Your task to perform on an android device: uninstall "Google Pay: Save, Pay, Manage" Image 0: 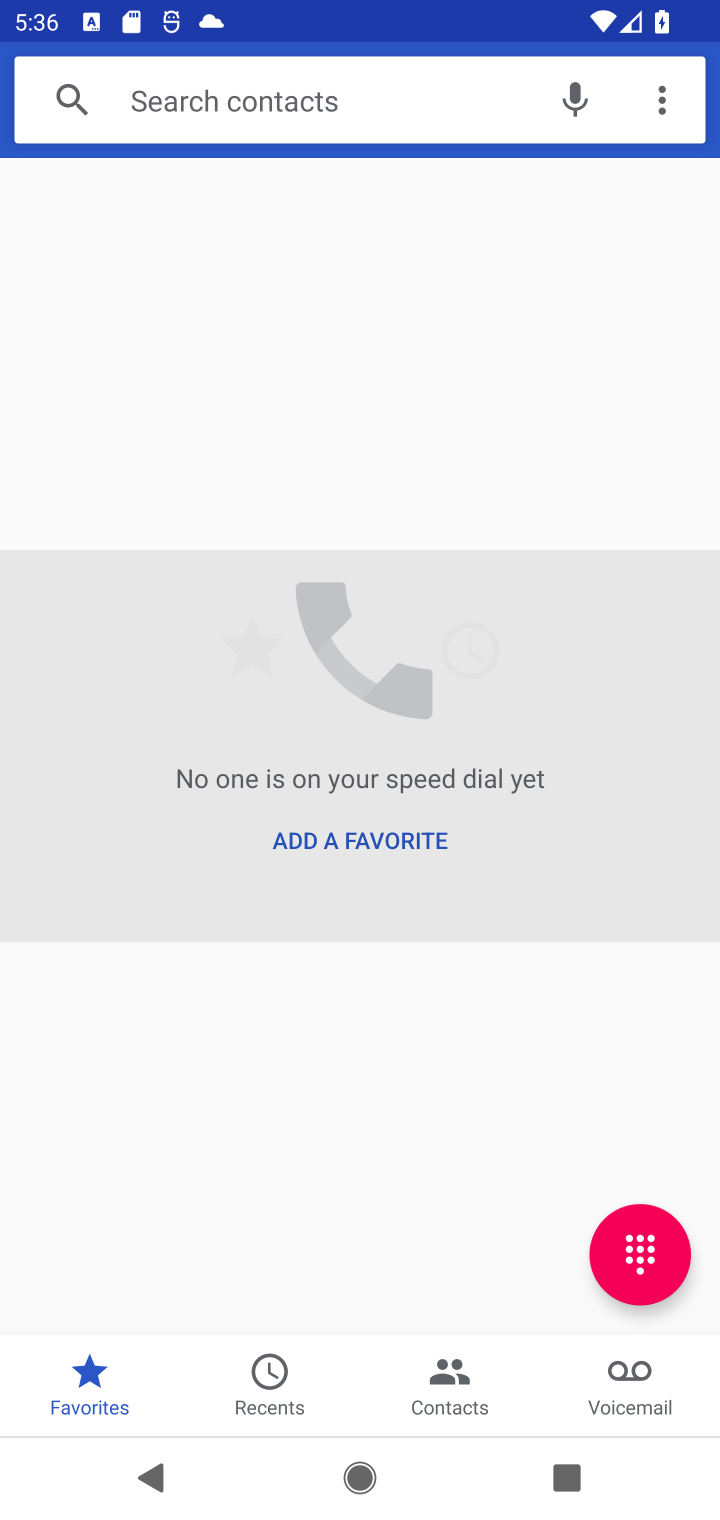
Step 0: press home button
Your task to perform on an android device: uninstall "Google Pay: Save, Pay, Manage" Image 1: 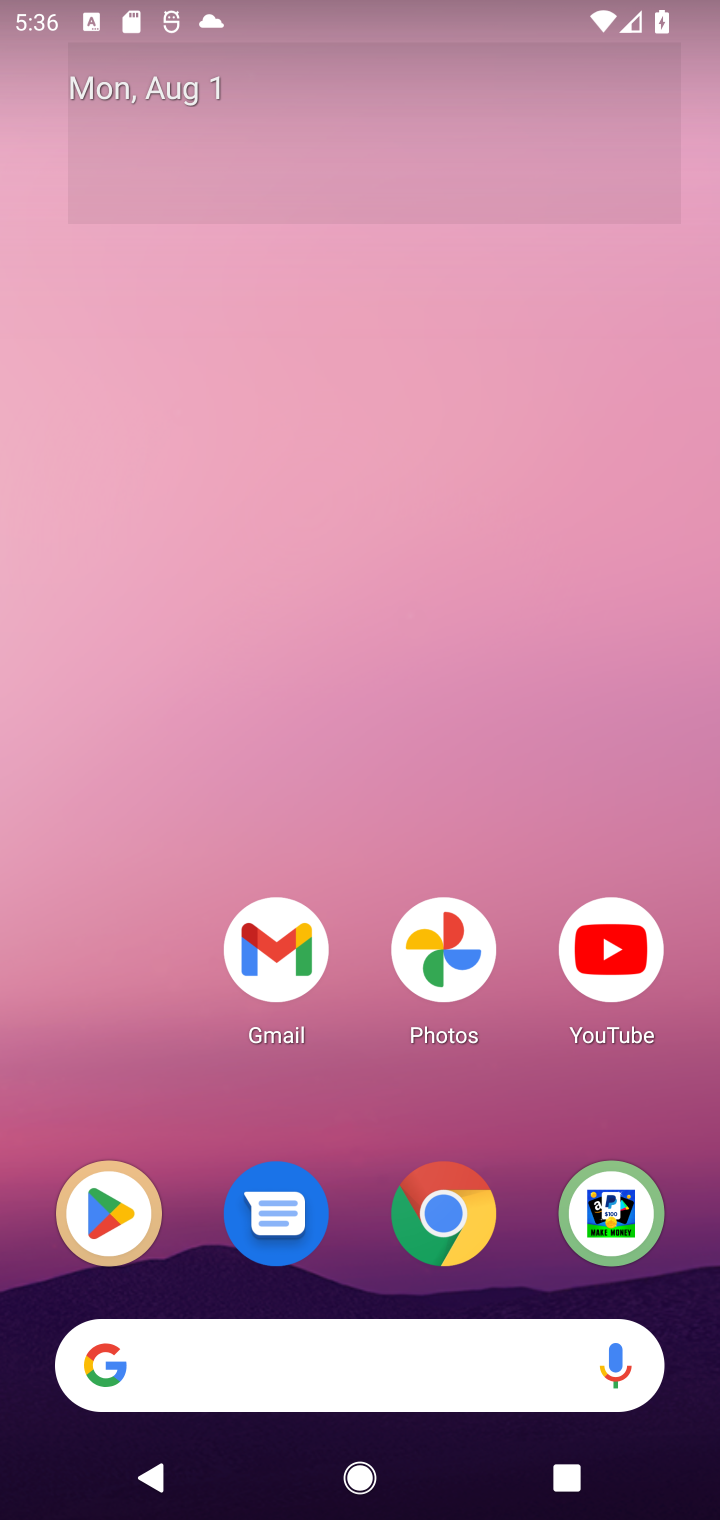
Step 1: drag from (498, 637) to (416, 235)
Your task to perform on an android device: uninstall "Google Pay: Save, Pay, Manage" Image 2: 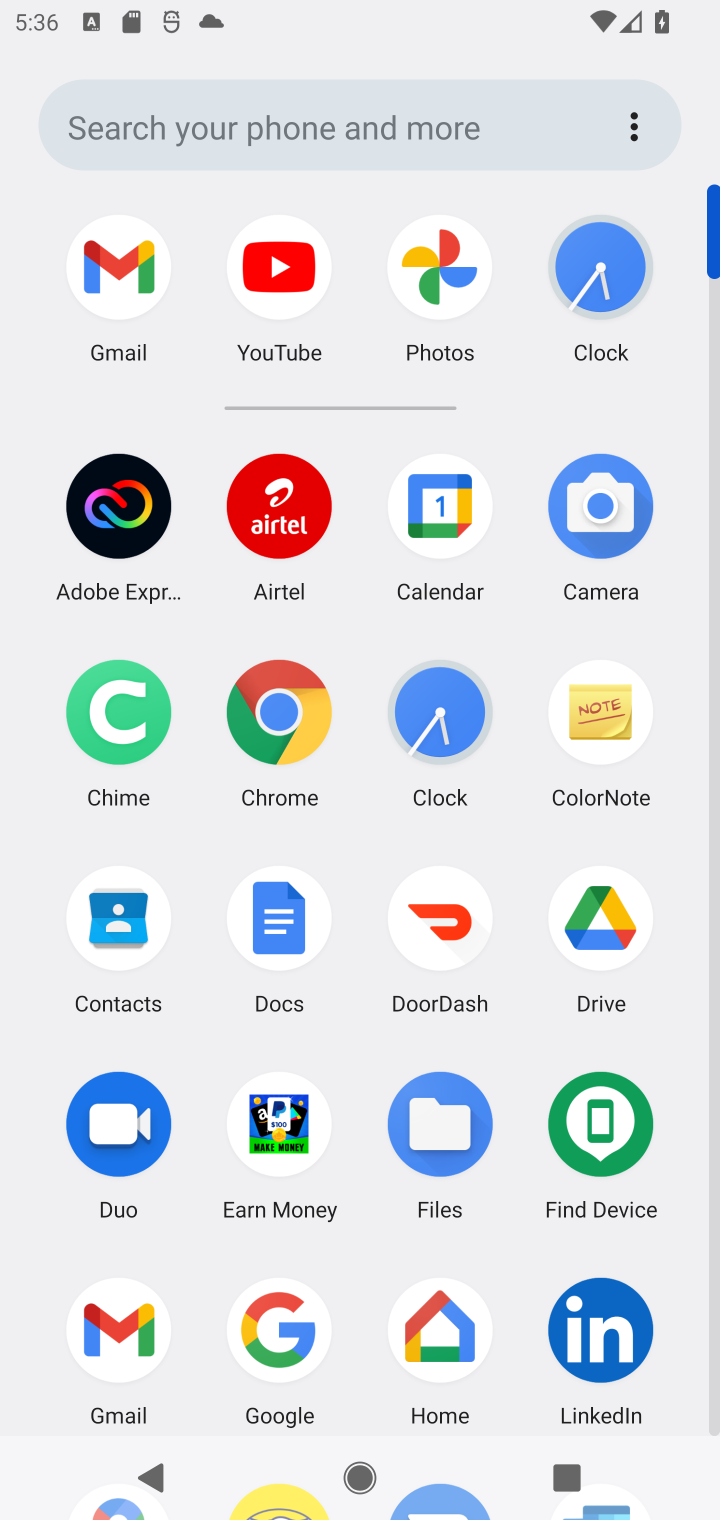
Step 2: drag from (515, 1392) to (496, 438)
Your task to perform on an android device: uninstall "Google Pay: Save, Pay, Manage" Image 3: 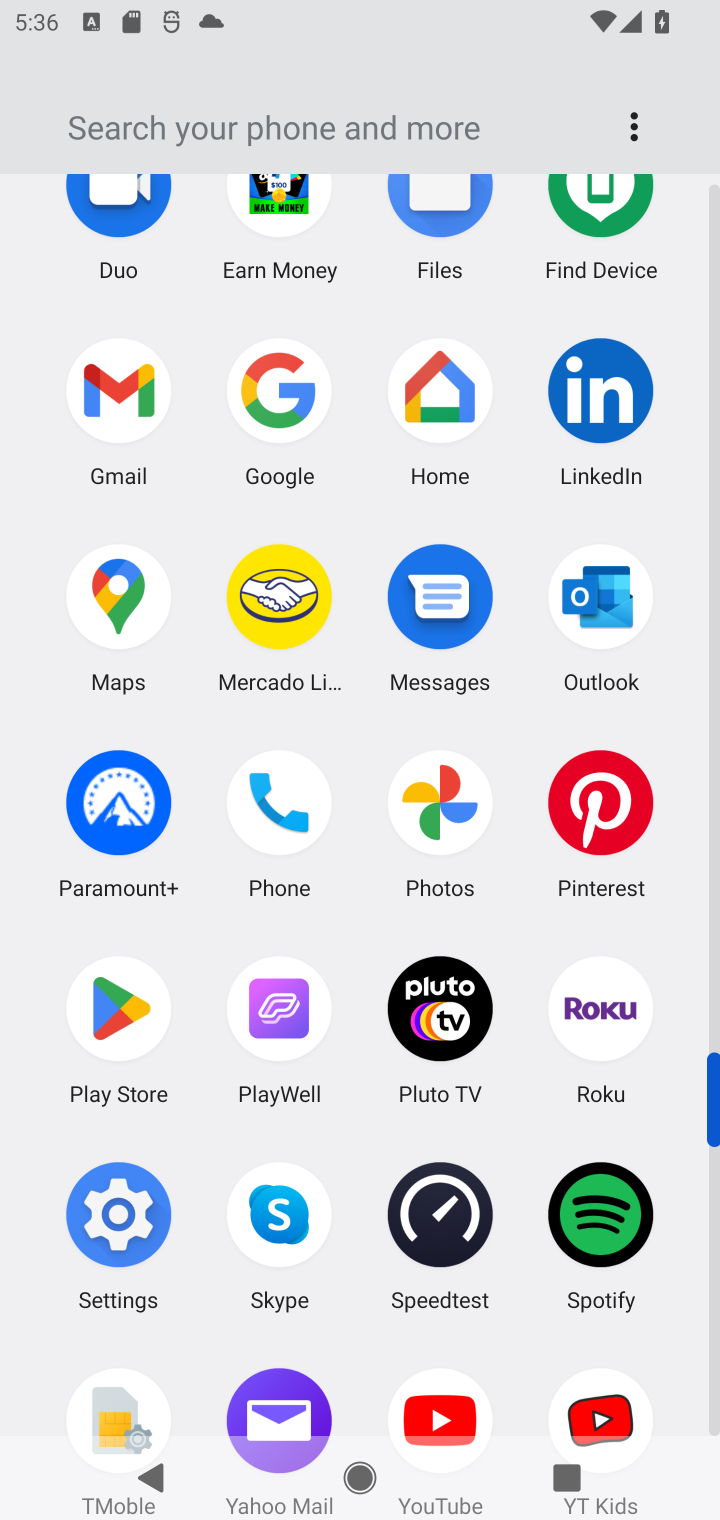
Step 3: click (125, 993)
Your task to perform on an android device: uninstall "Google Pay: Save, Pay, Manage" Image 4: 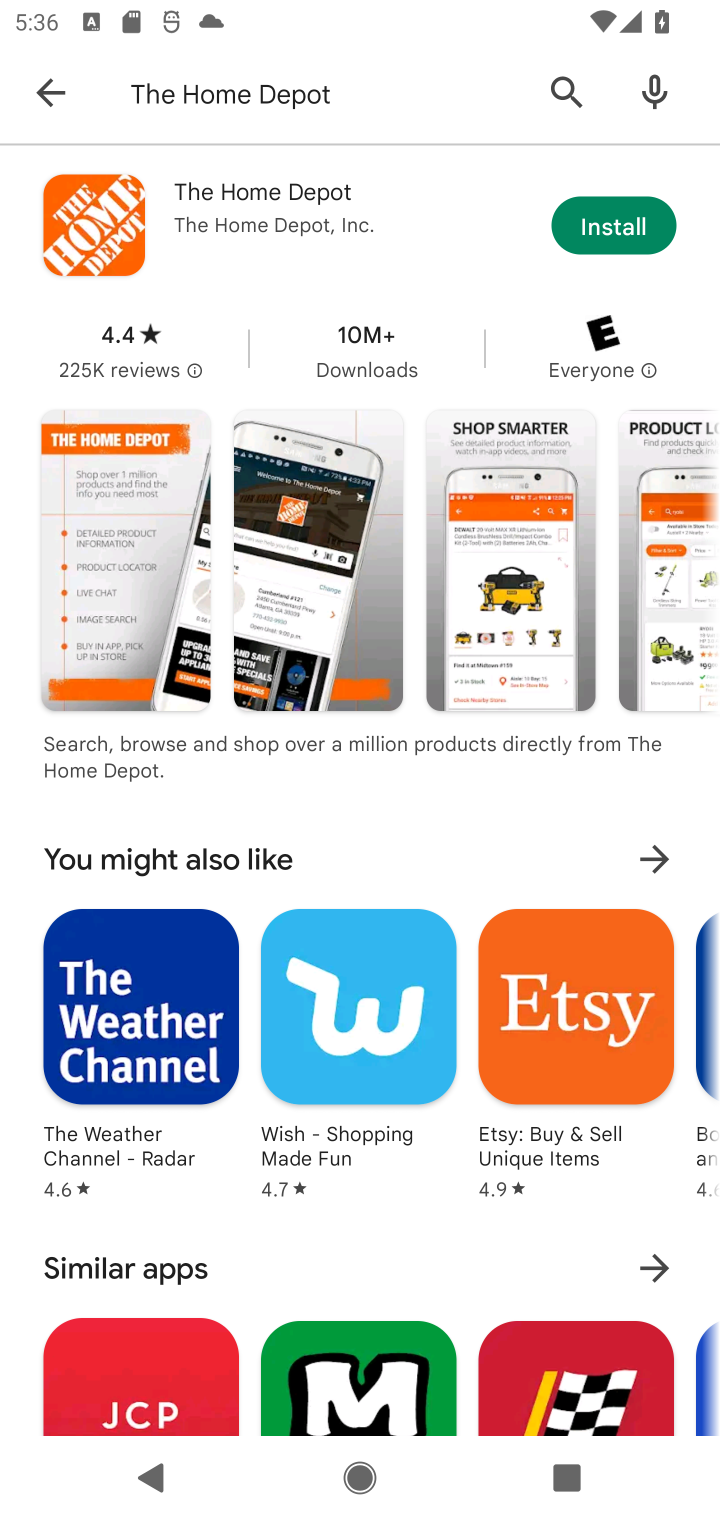
Step 4: click (495, 84)
Your task to perform on an android device: uninstall "Google Pay: Save, Pay, Manage" Image 5: 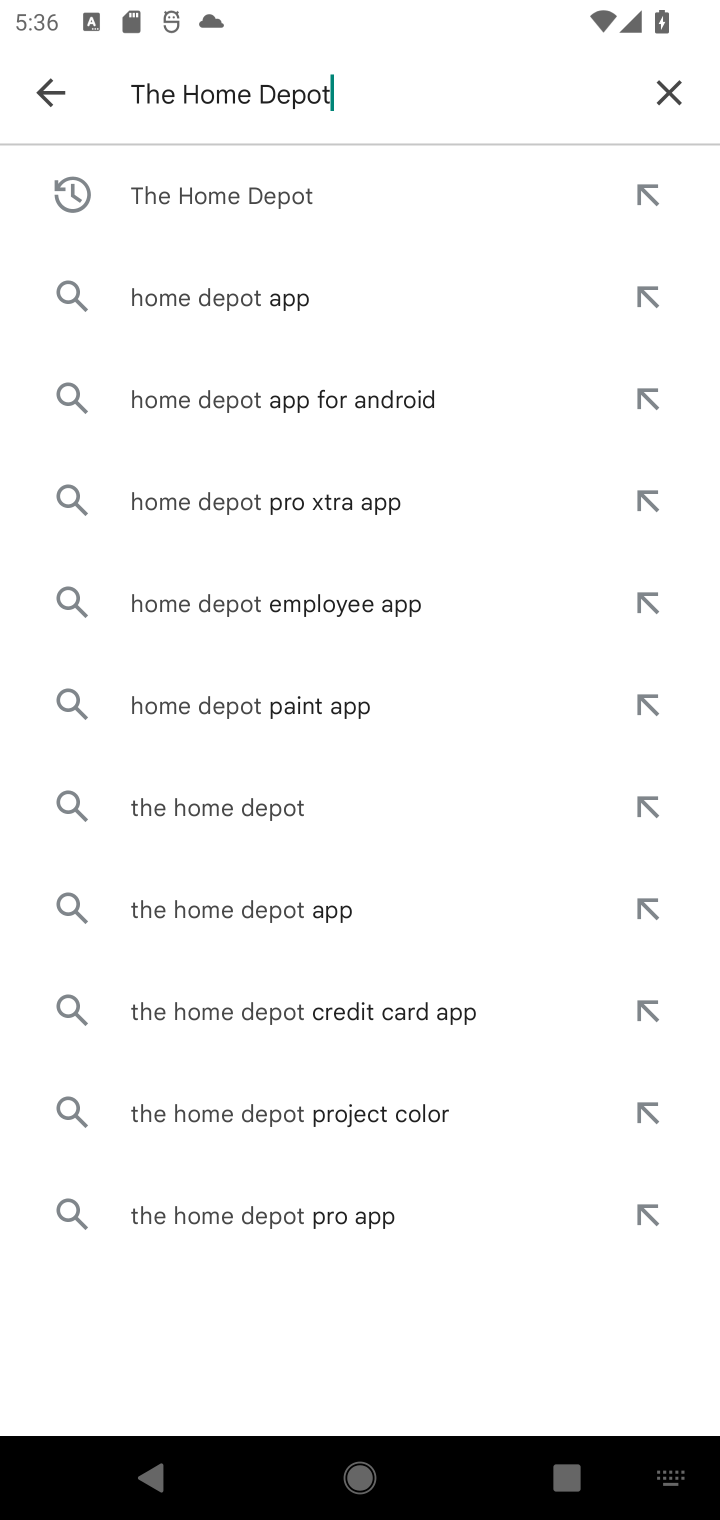
Step 5: click (672, 80)
Your task to perform on an android device: uninstall "Google Pay: Save, Pay, Manage" Image 6: 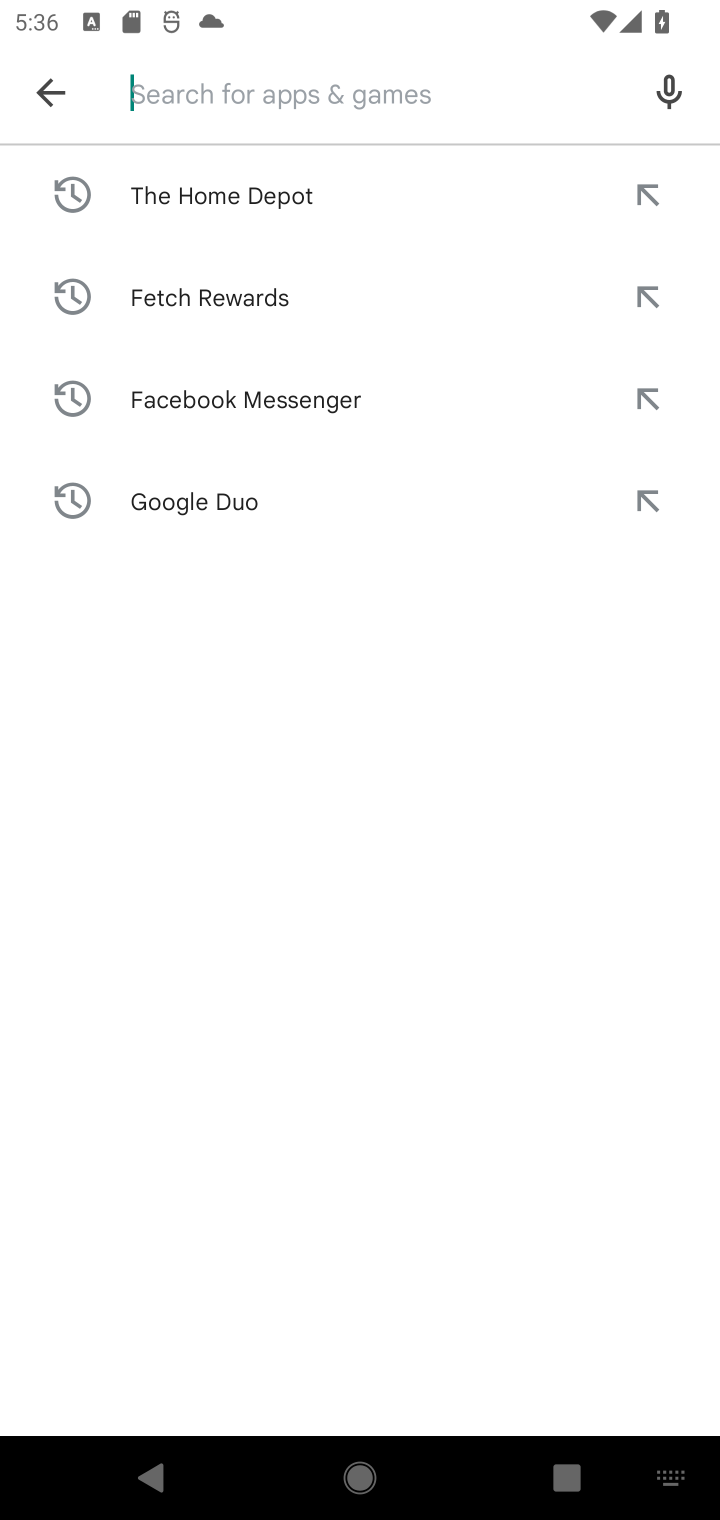
Step 6: type "Google Pay: Save, Pay, Manage"
Your task to perform on an android device: uninstall "Google Pay: Save, Pay, Manage" Image 7: 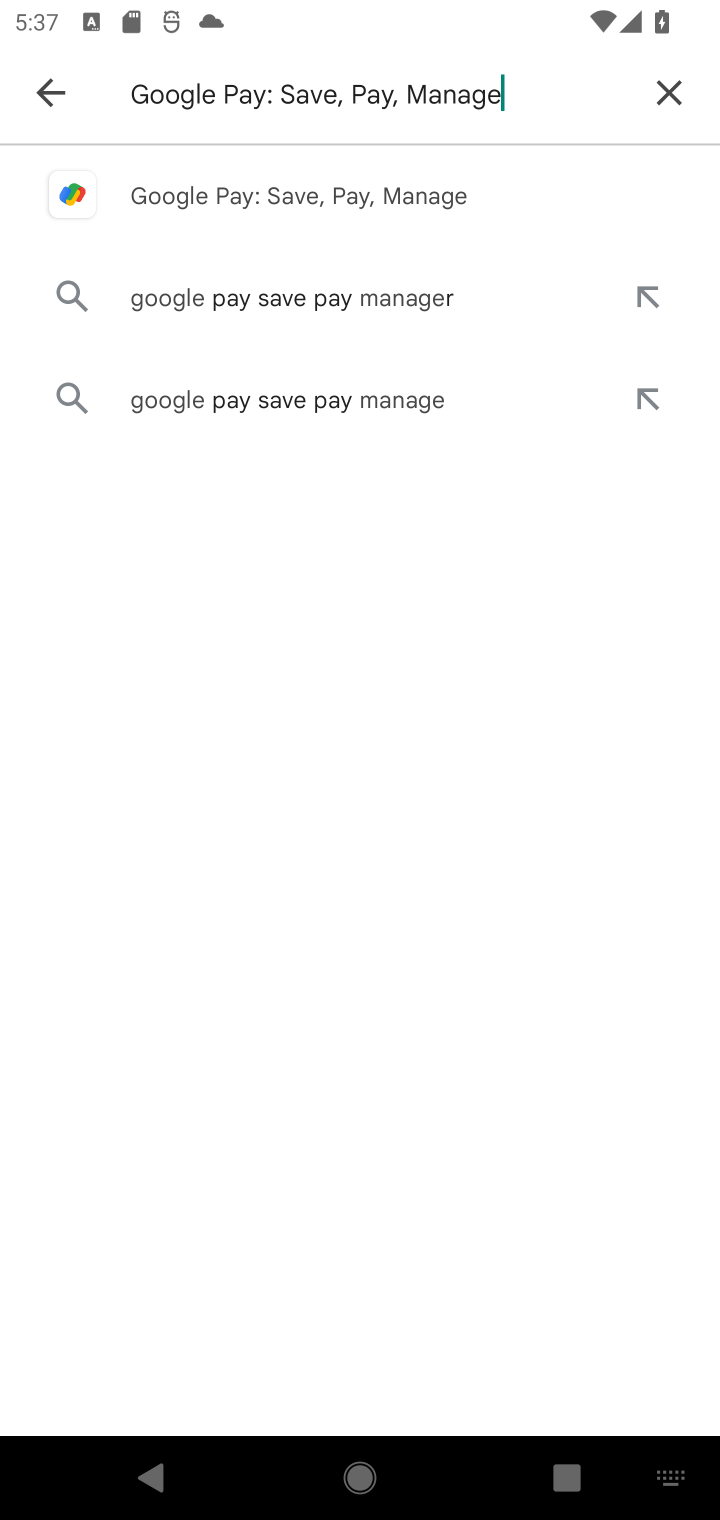
Step 7: press enter
Your task to perform on an android device: uninstall "Google Pay: Save, Pay, Manage" Image 8: 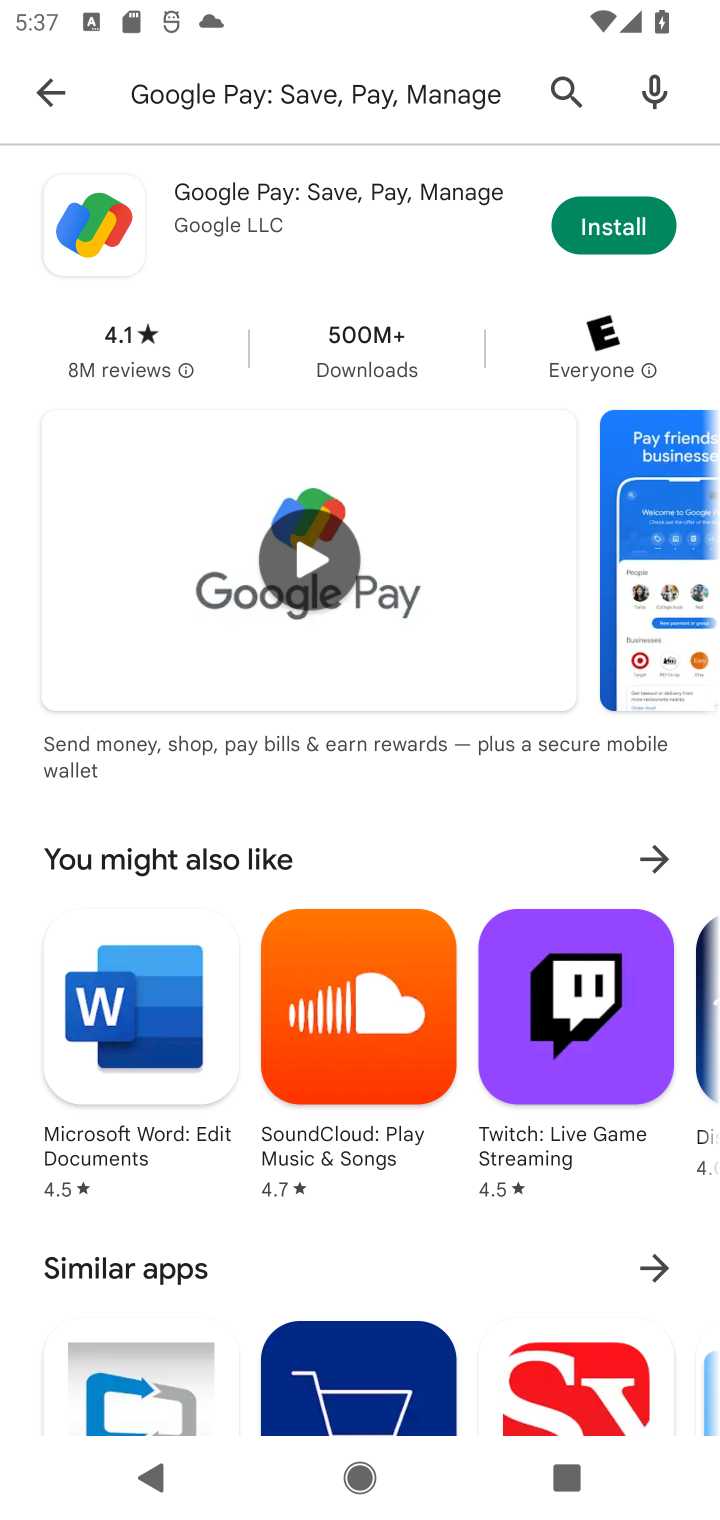
Step 8: task complete